Your task to perform on an android device: delete the emails in spam in the gmail app Image 0: 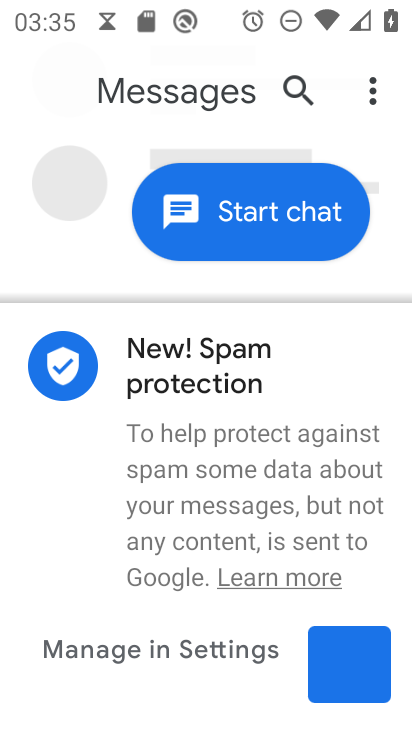
Step 0: press home button
Your task to perform on an android device: delete the emails in spam in the gmail app Image 1: 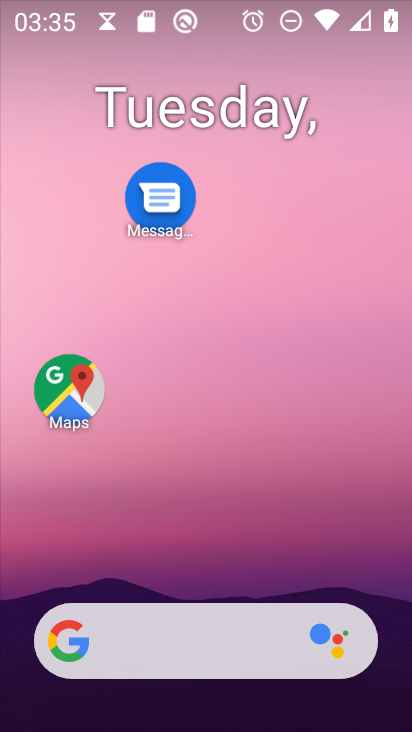
Step 1: drag from (219, 557) to (271, 226)
Your task to perform on an android device: delete the emails in spam in the gmail app Image 2: 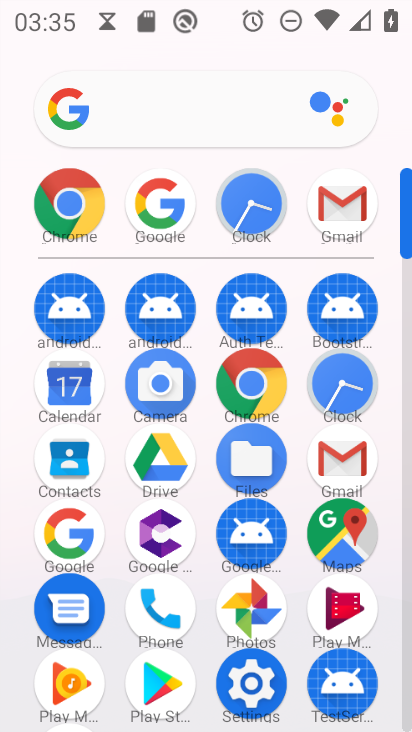
Step 2: click (323, 457)
Your task to perform on an android device: delete the emails in spam in the gmail app Image 3: 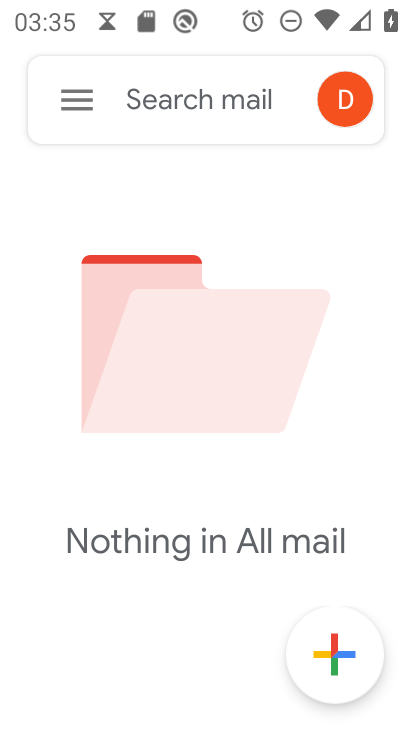
Step 3: click (76, 101)
Your task to perform on an android device: delete the emails in spam in the gmail app Image 4: 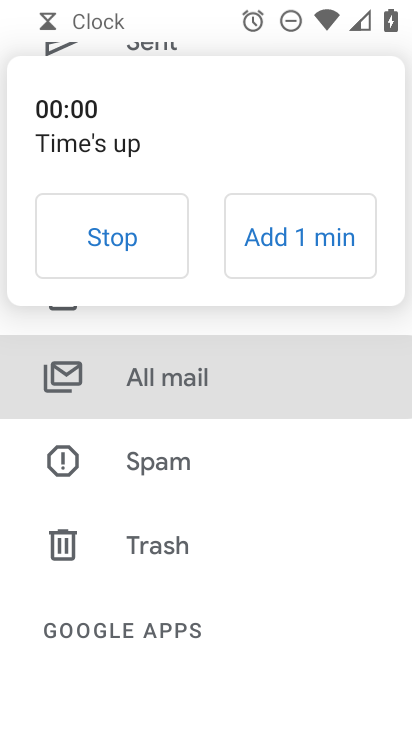
Step 4: drag from (197, 214) to (127, 263)
Your task to perform on an android device: delete the emails in spam in the gmail app Image 5: 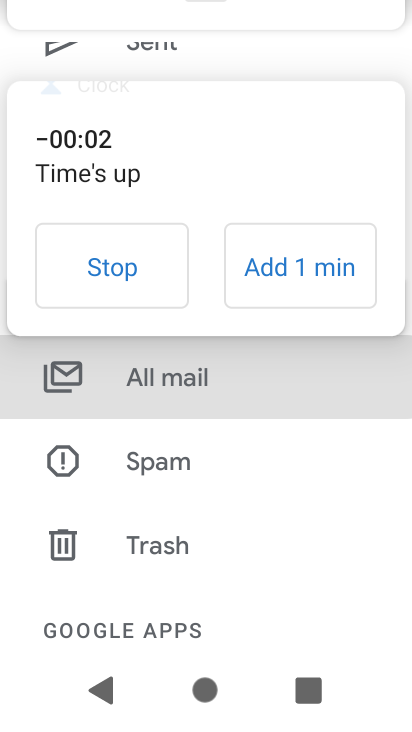
Step 5: click (123, 256)
Your task to perform on an android device: delete the emails in spam in the gmail app Image 6: 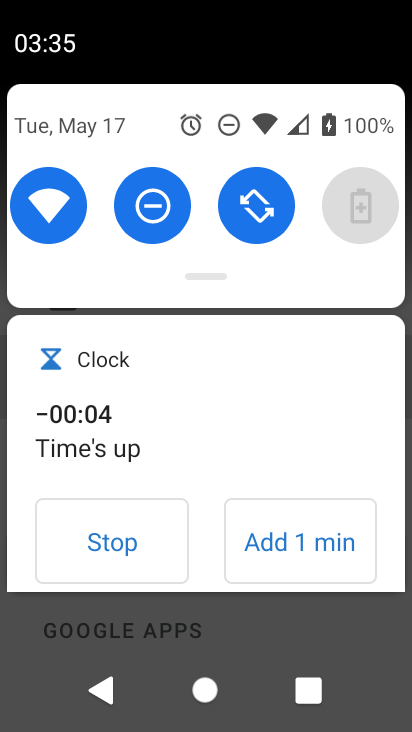
Step 6: click (116, 528)
Your task to perform on an android device: delete the emails in spam in the gmail app Image 7: 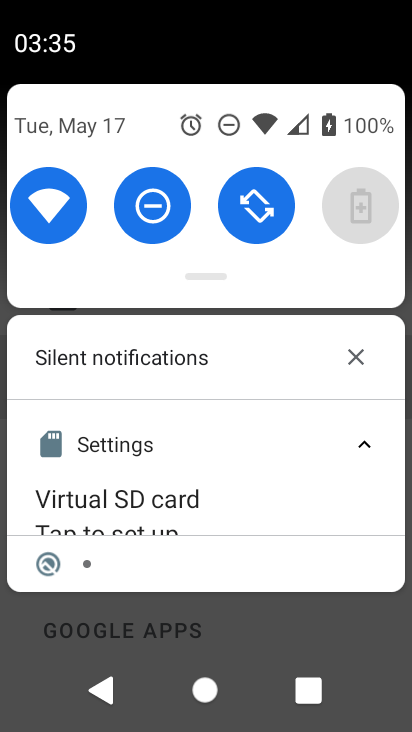
Step 7: drag from (152, 650) to (240, 272)
Your task to perform on an android device: delete the emails in spam in the gmail app Image 8: 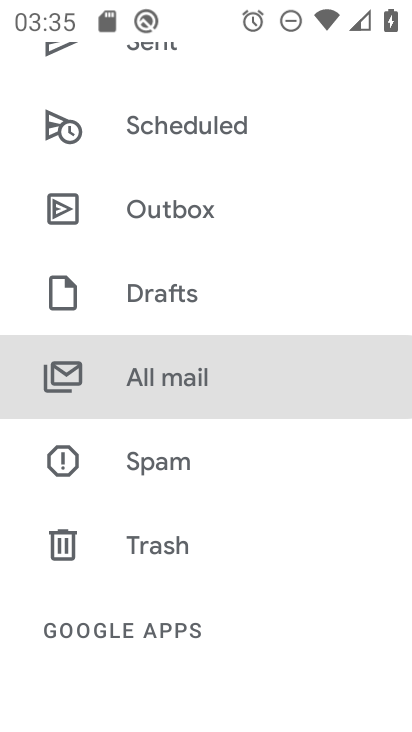
Step 8: drag from (230, 255) to (219, 448)
Your task to perform on an android device: delete the emails in spam in the gmail app Image 9: 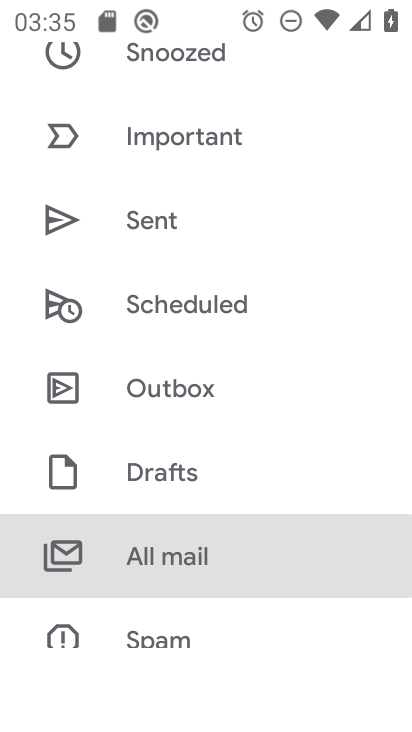
Step 9: drag from (205, 165) to (226, 426)
Your task to perform on an android device: delete the emails in spam in the gmail app Image 10: 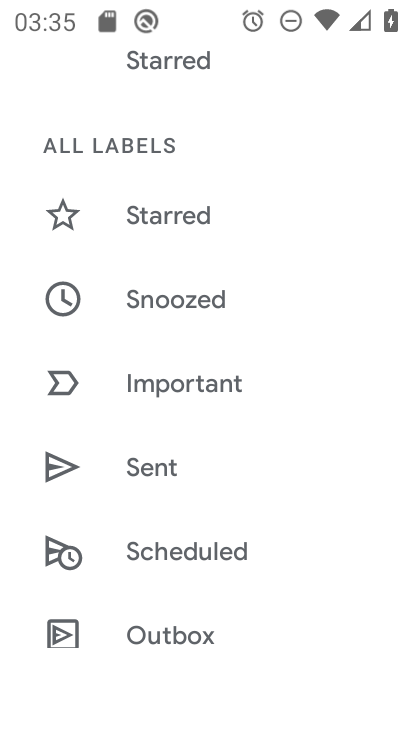
Step 10: drag from (201, 273) to (212, 431)
Your task to perform on an android device: delete the emails in spam in the gmail app Image 11: 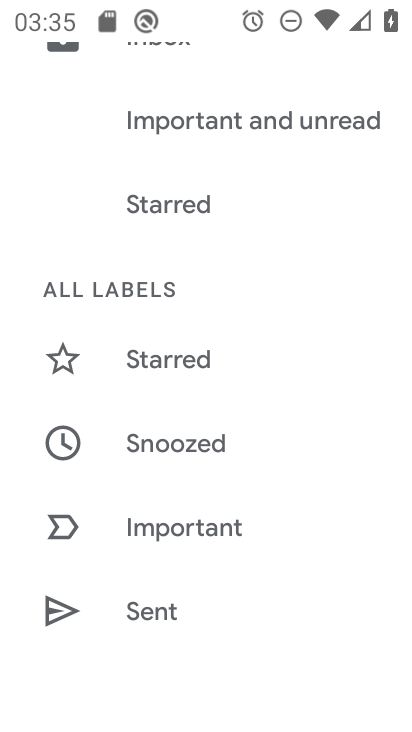
Step 11: drag from (214, 252) to (260, 202)
Your task to perform on an android device: delete the emails in spam in the gmail app Image 12: 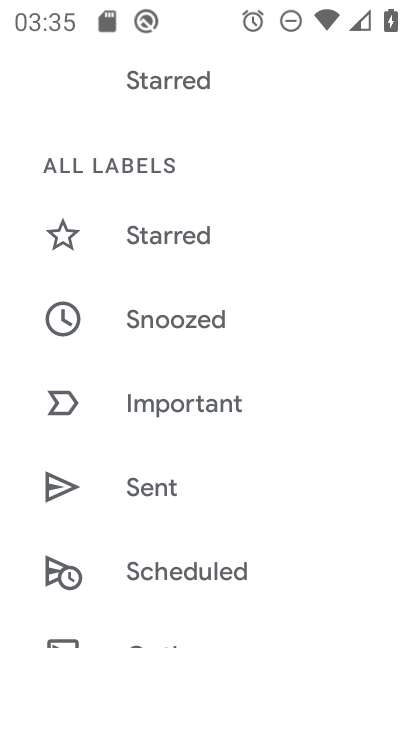
Step 12: drag from (190, 504) to (240, 253)
Your task to perform on an android device: delete the emails in spam in the gmail app Image 13: 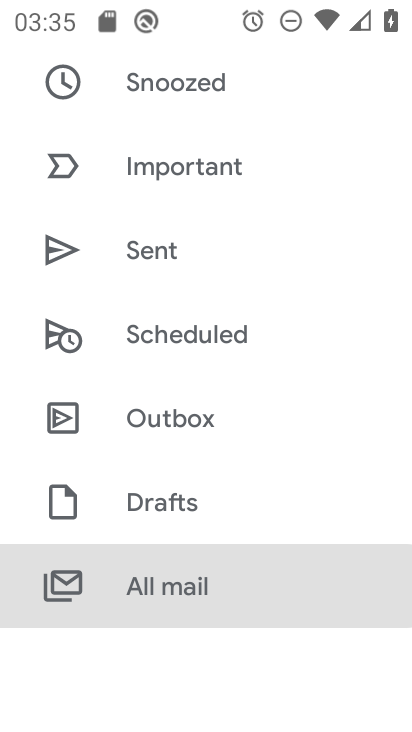
Step 13: drag from (201, 489) to (244, 245)
Your task to perform on an android device: delete the emails in spam in the gmail app Image 14: 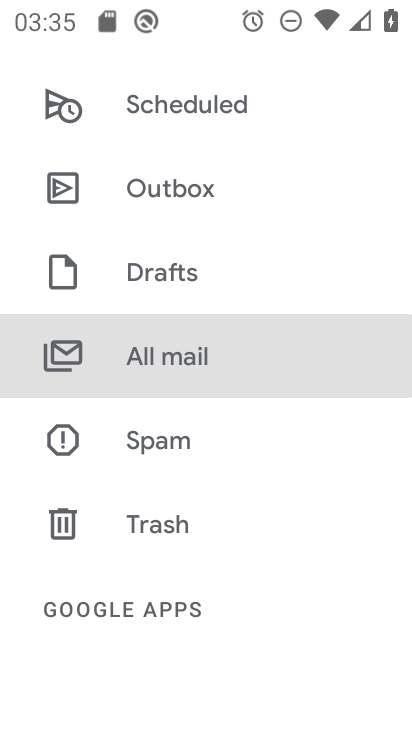
Step 14: click (165, 431)
Your task to perform on an android device: delete the emails in spam in the gmail app Image 15: 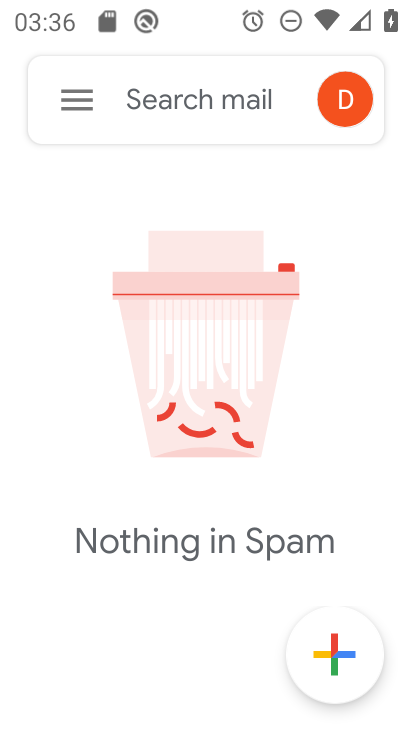
Step 15: click (68, 108)
Your task to perform on an android device: delete the emails in spam in the gmail app Image 16: 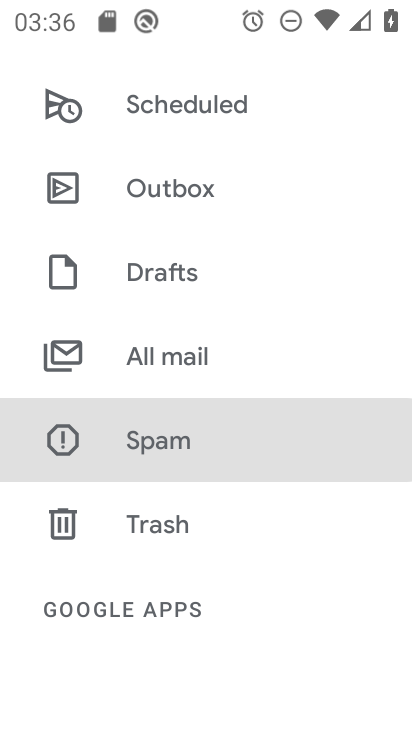
Step 16: task complete